Your task to perform on an android device: set an alarm Image 0: 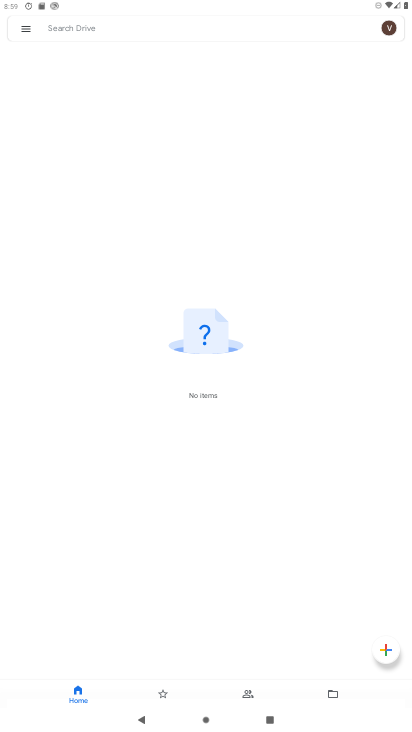
Step 0: press home button
Your task to perform on an android device: set an alarm Image 1: 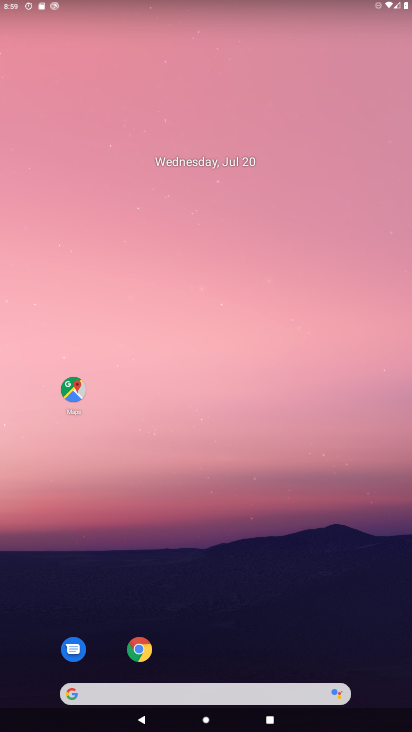
Step 1: drag from (176, 699) to (249, 140)
Your task to perform on an android device: set an alarm Image 2: 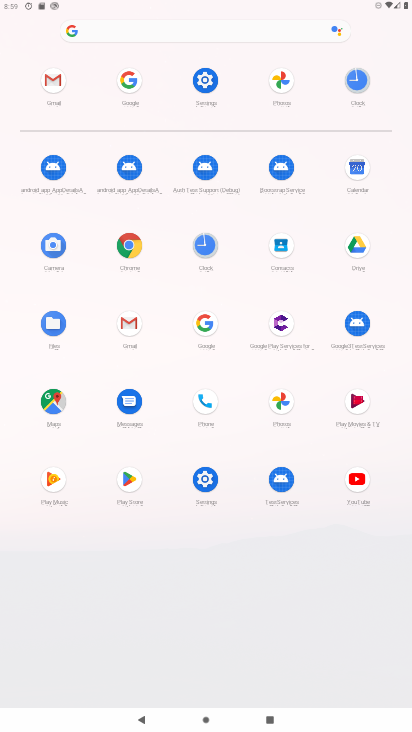
Step 2: click (358, 81)
Your task to perform on an android device: set an alarm Image 3: 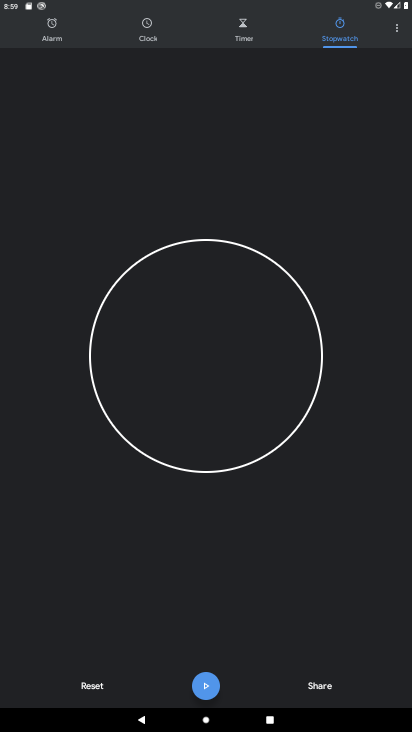
Step 3: click (53, 27)
Your task to perform on an android device: set an alarm Image 4: 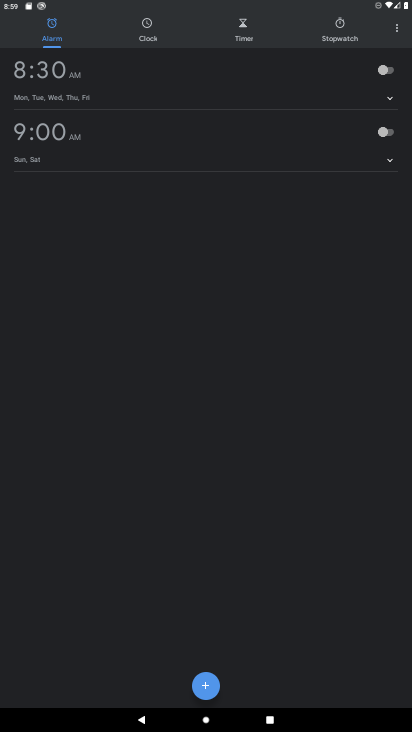
Step 4: click (210, 685)
Your task to perform on an android device: set an alarm Image 5: 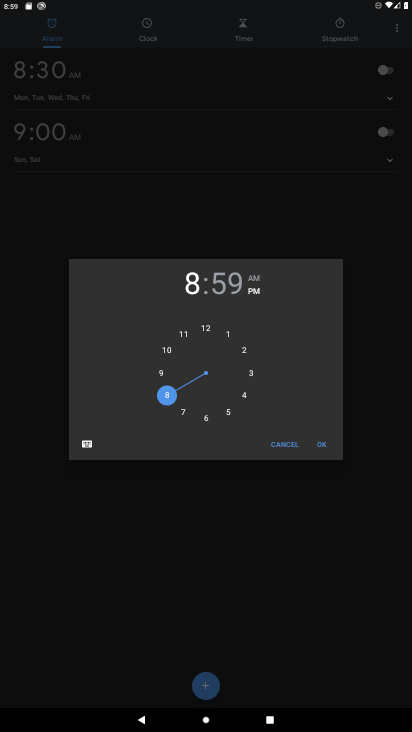
Step 5: click (209, 419)
Your task to perform on an android device: set an alarm Image 6: 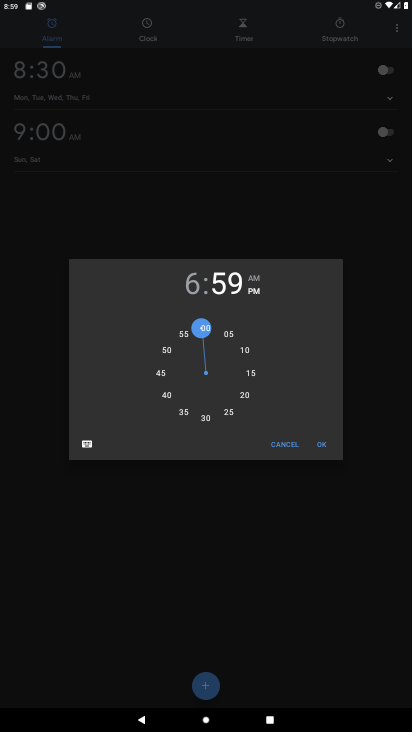
Step 6: click (205, 328)
Your task to perform on an android device: set an alarm Image 7: 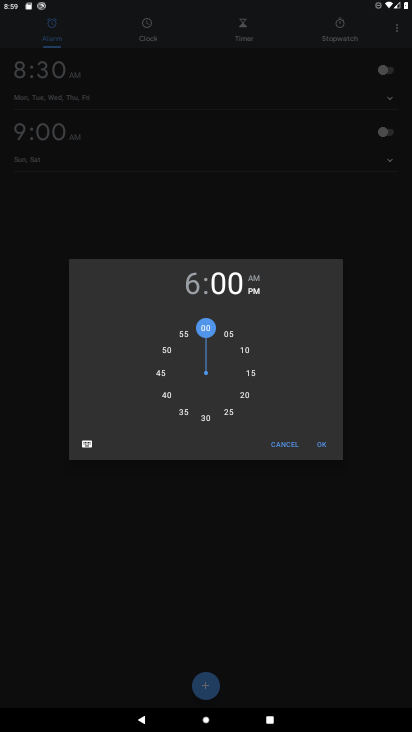
Step 7: click (325, 449)
Your task to perform on an android device: set an alarm Image 8: 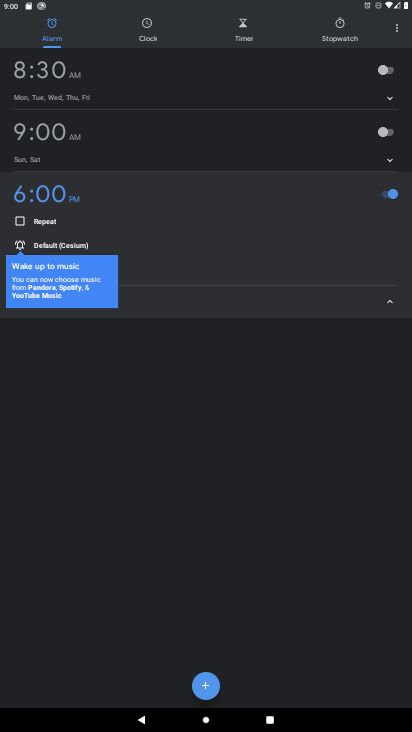
Step 8: task complete